Your task to perform on an android device: Open ESPN.com Image 0: 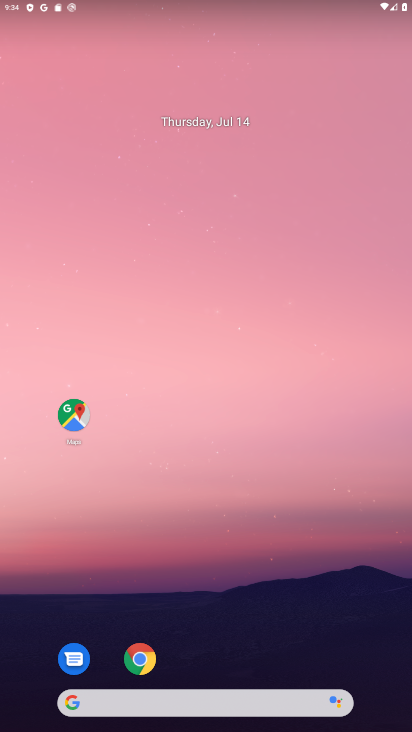
Step 0: drag from (295, 612) to (275, 152)
Your task to perform on an android device: Open ESPN.com Image 1: 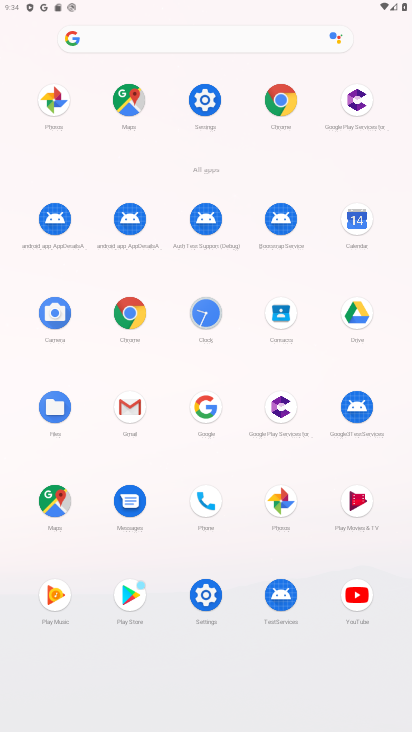
Step 1: click (131, 313)
Your task to perform on an android device: Open ESPN.com Image 2: 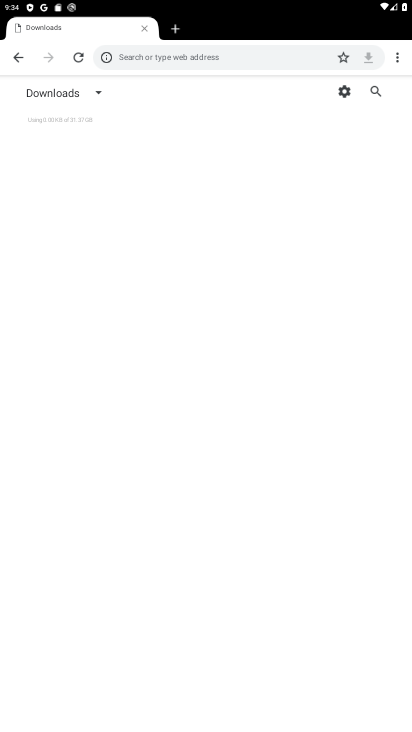
Step 2: click (231, 54)
Your task to perform on an android device: Open ESPN.com Image 3: 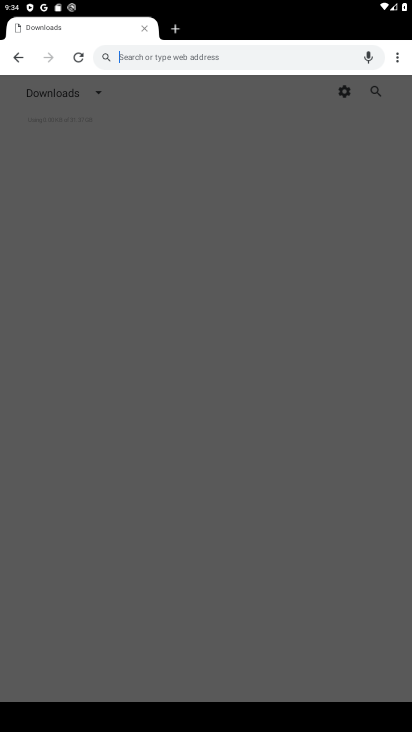
Step 3: type "espn.com"
Your task to perform on an android device: Open ESPN.com Image 4: 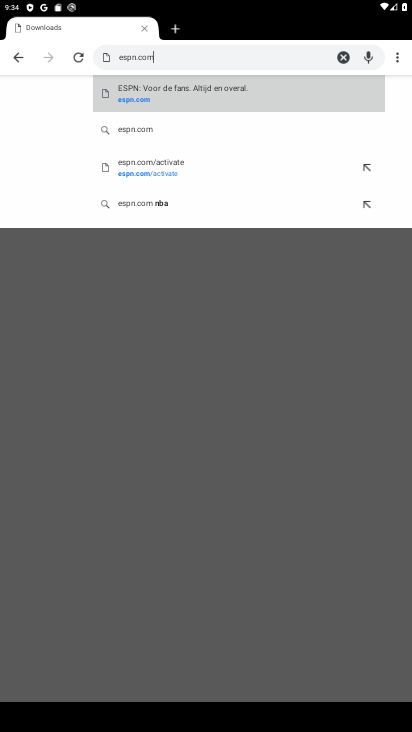
Step 4: click (149, 97)
Your task to perform on an android device: Open ESPN.com Image 5: 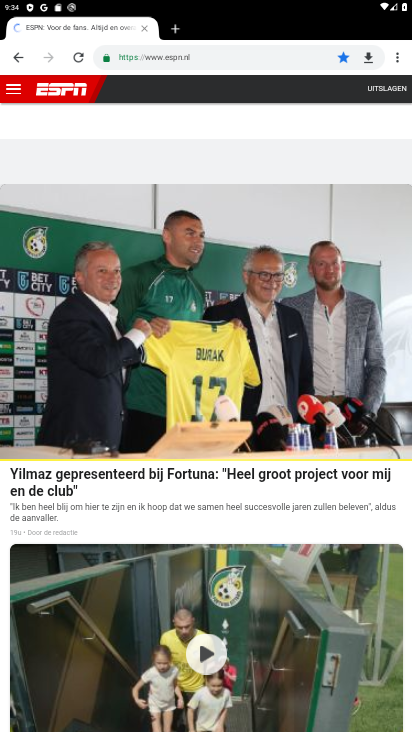
Step 5: task complete